Your task to perform on an android device: Show the shopping cart on target.com. Add "logitech g pro" to the cart on target.com Image 0: 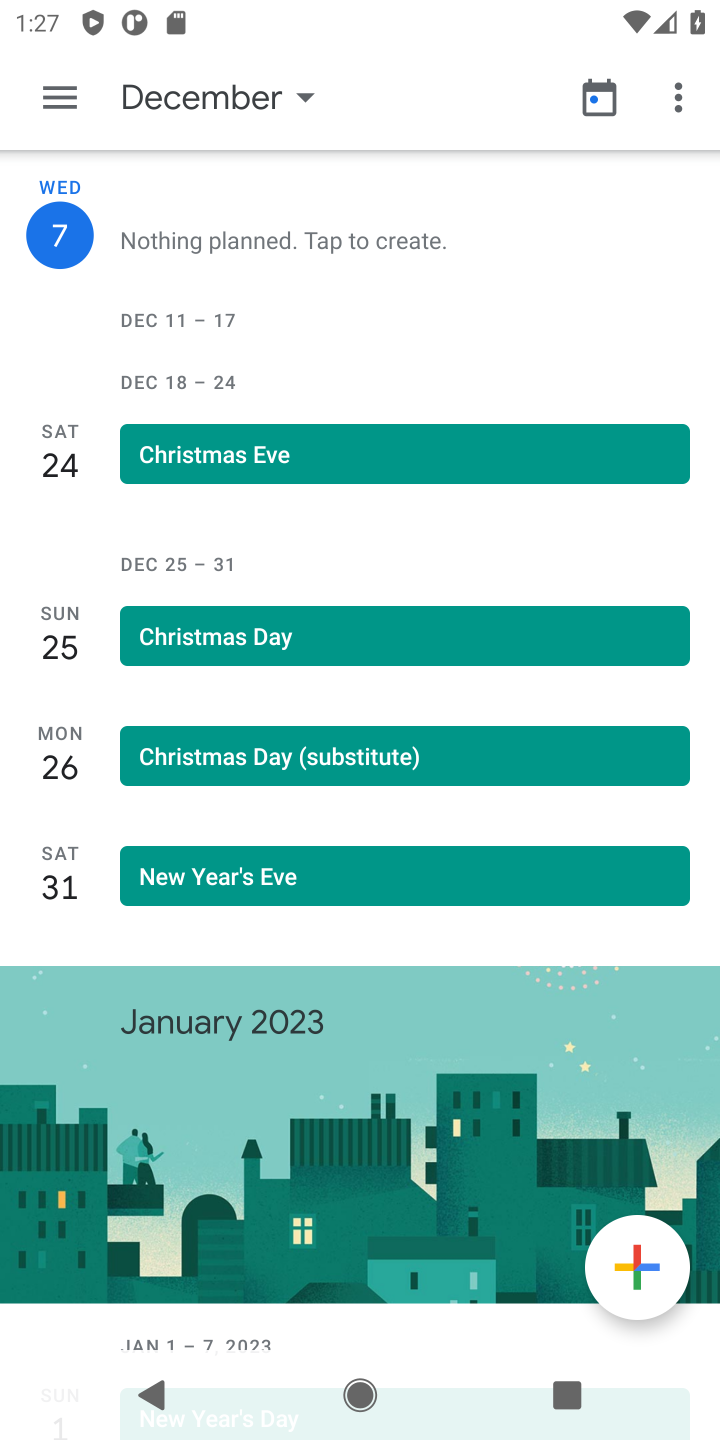
Step 0: press home button
Your task to perform on an android device: Show the shopping cart on target.com. Add "logitech g pro" to the cart on target.com Image 1: 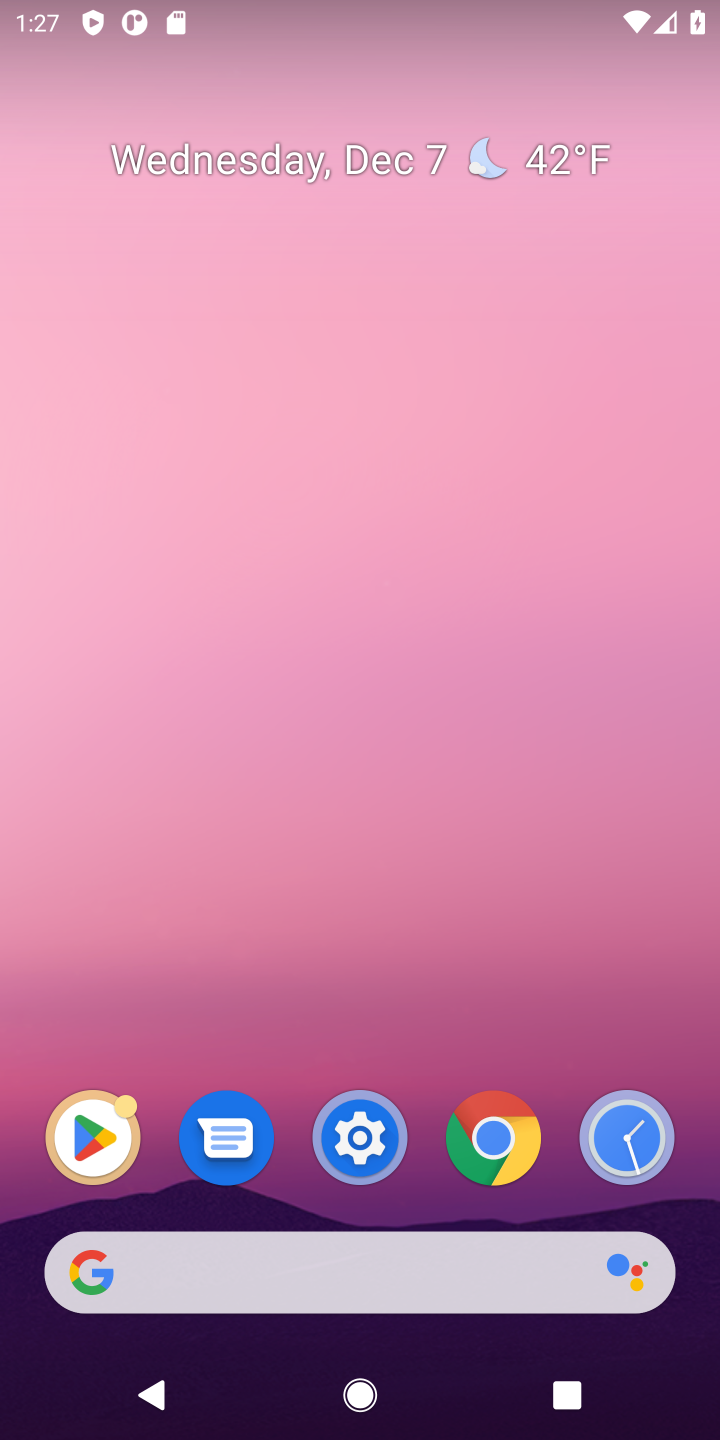
Step 1: click (305, 1263)
Your task to perform on an android device: Show the shopping cart on target.com. Add "logitech g pro" to the cart on target.com Image 2: 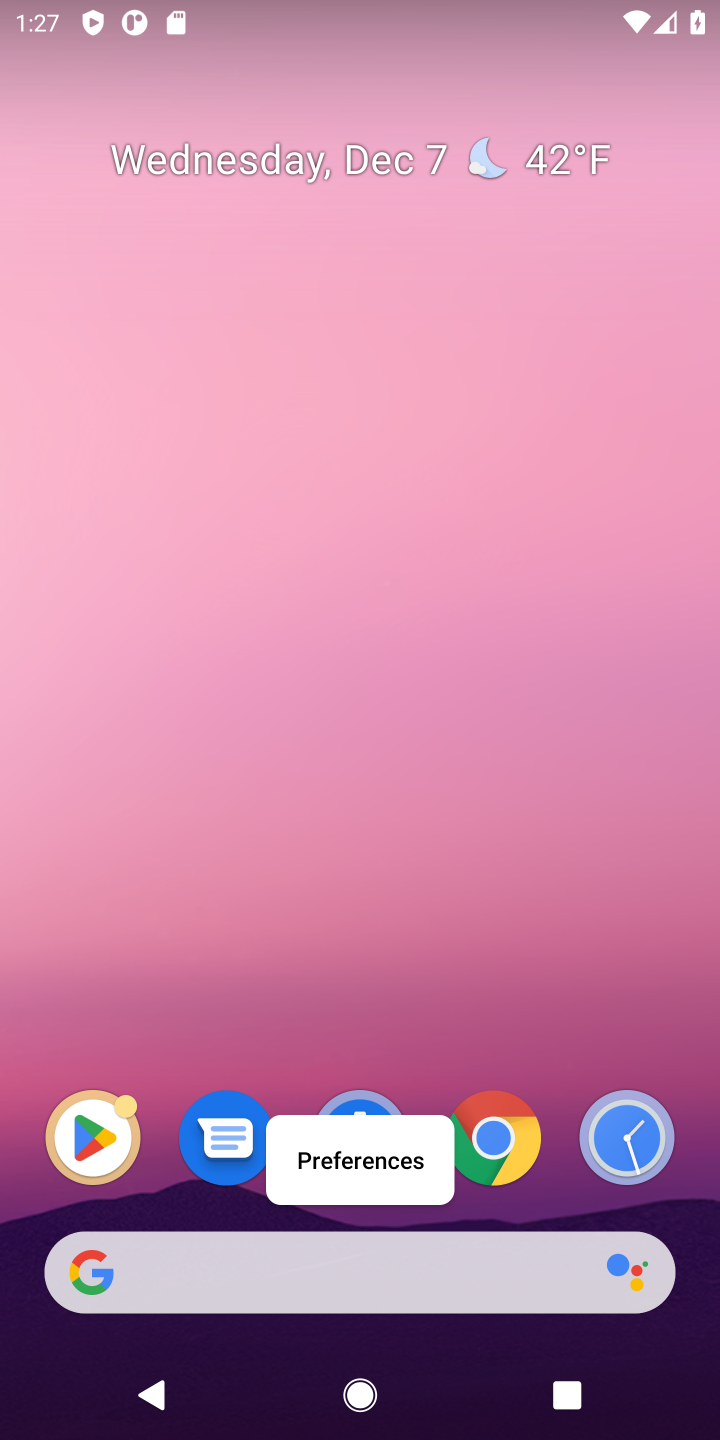
Step 2: type "target'"
Your task to perform on an android device: Show the shopping cart on target.com. Add "logitech g pro" to the cart on target.com Image 3: 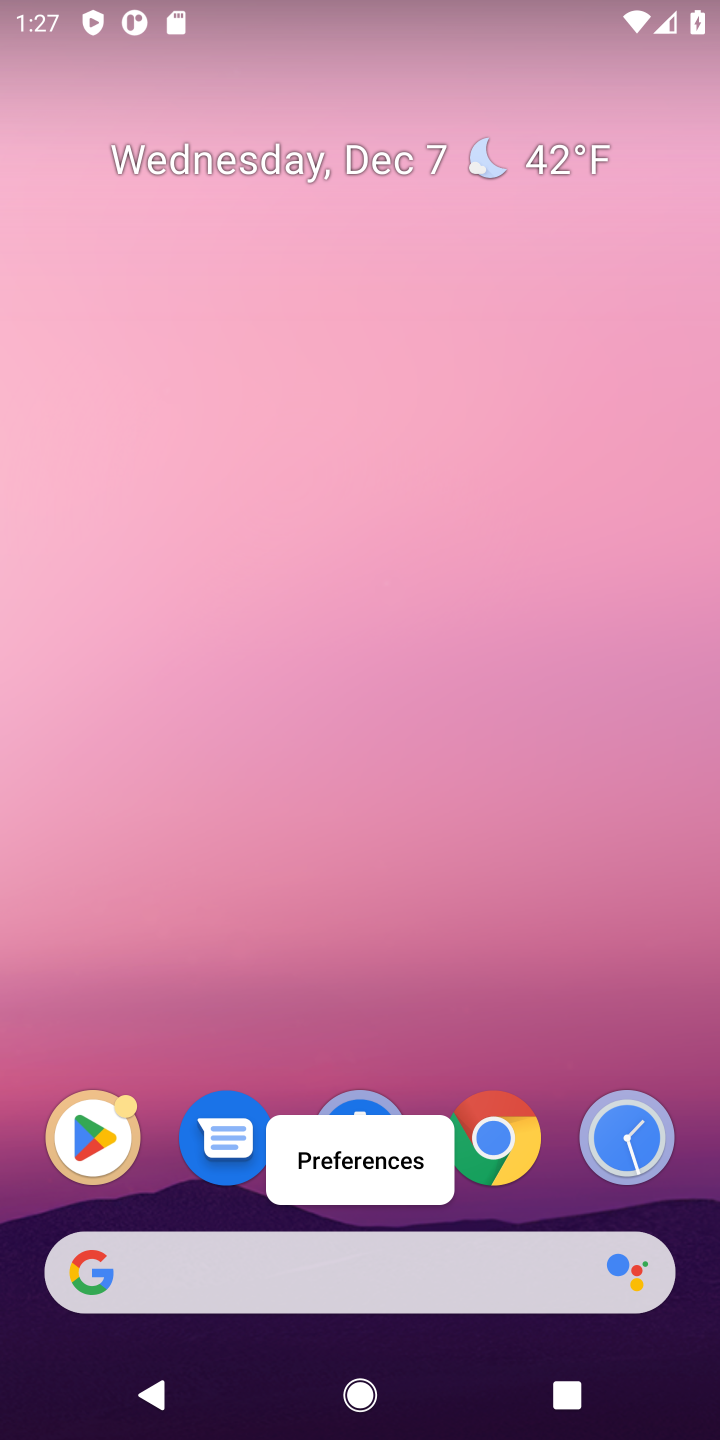
Step 3: click (348, 1258)
Your task to perform on an android device: Show the shopping cart on target.com. Add "logitech g pro" to the cart on target.com Image 4: 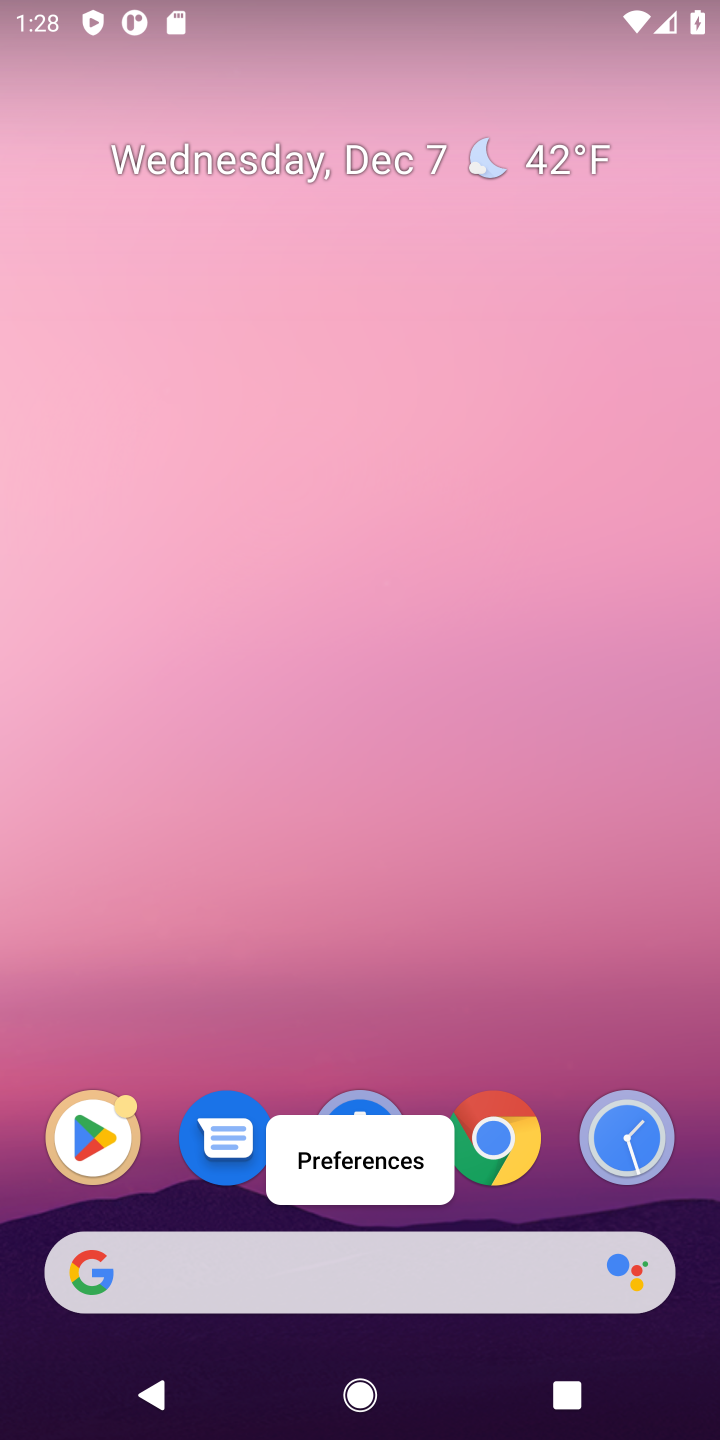
Step 4: click (348, 1258)
Your task to perform on an android device: Show the shopping cart on target.com. Add "logitech g pro" to the cart on target.com Image 5: 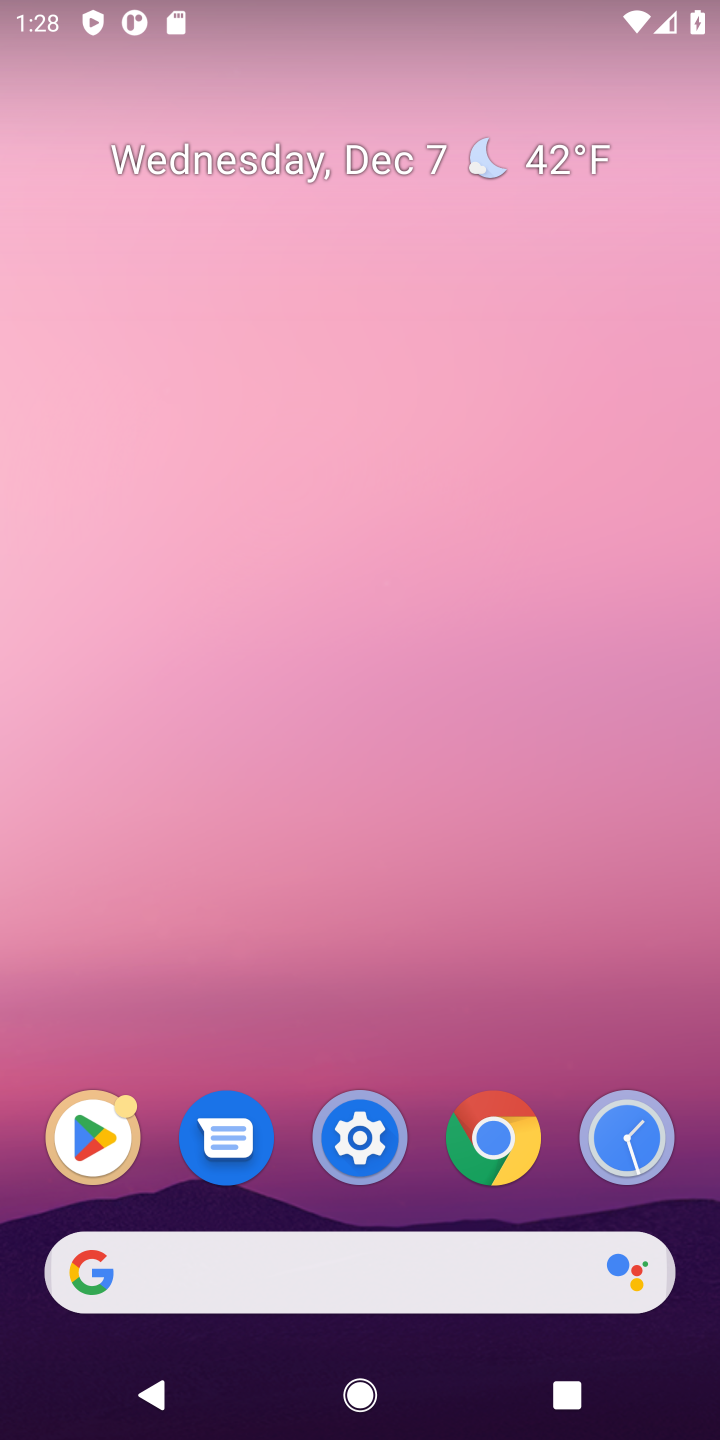
Step 5: click (348, 1258)
Your task to perform on an android device: Show the shopping cart on target.com. Add "logitech g pro" to the cart on target.com Image 6: 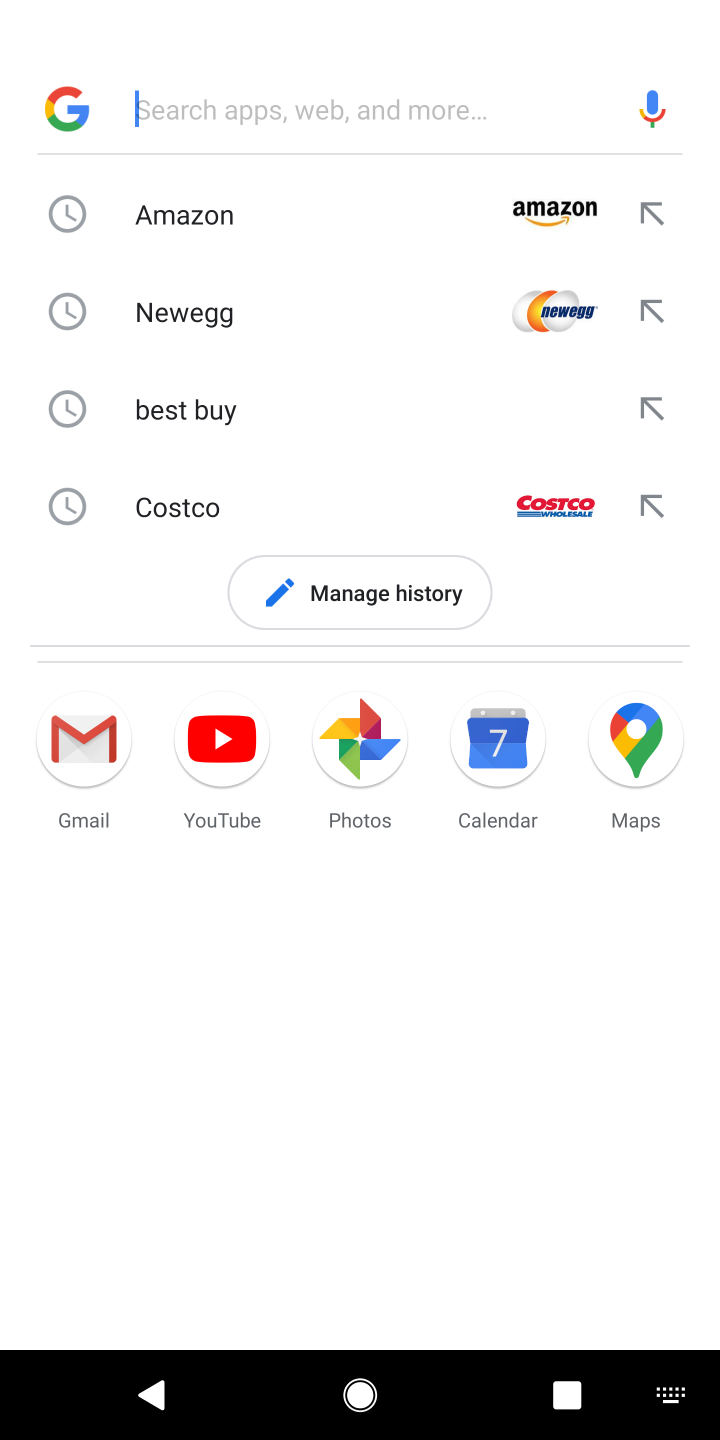
Step 6: type "target\"
Your task to perform on an android device: Show the shopping cart on target.com. Add "logitech g pro" to the cart on target.com Image 7: 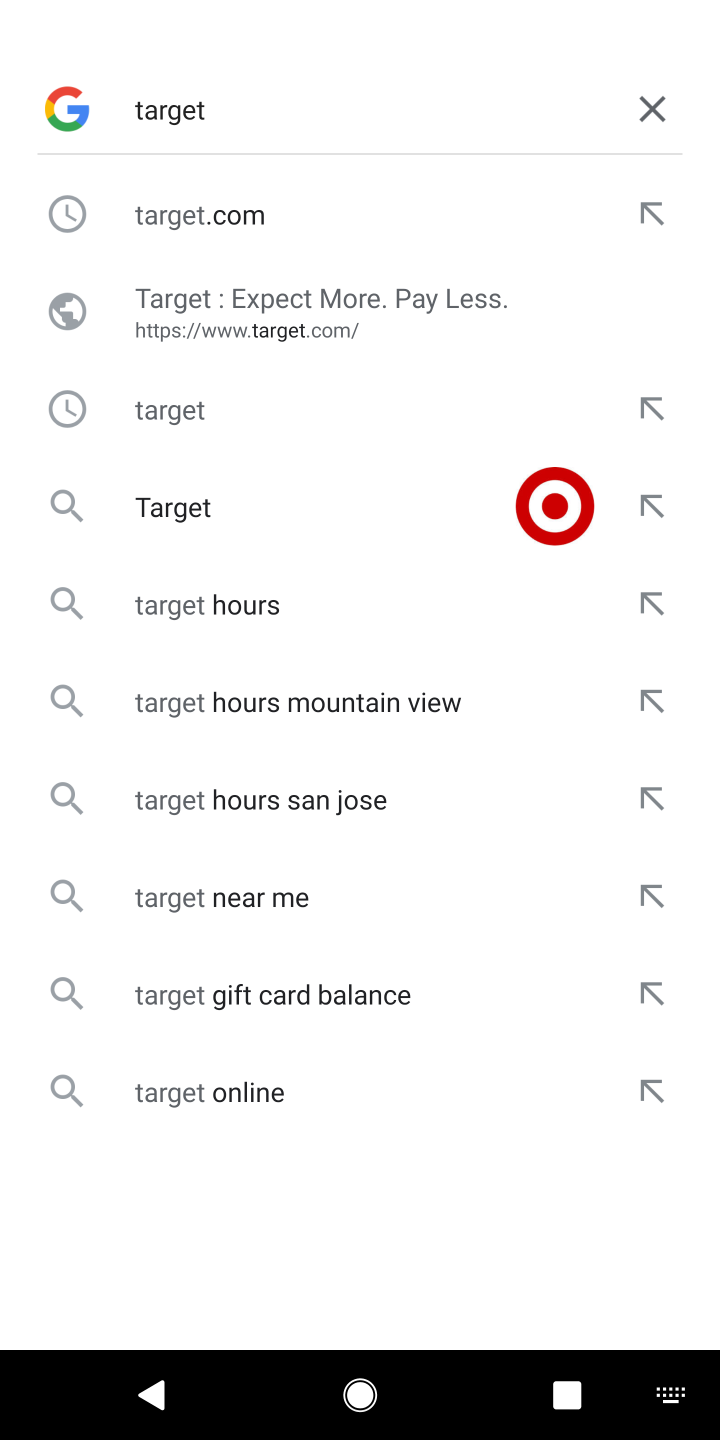
Step 7: click (205, 284)
Your task to perform on an android device: Show the shopping cart on target.com. Add "logitech g pro" to the cart on target.com Image 8: 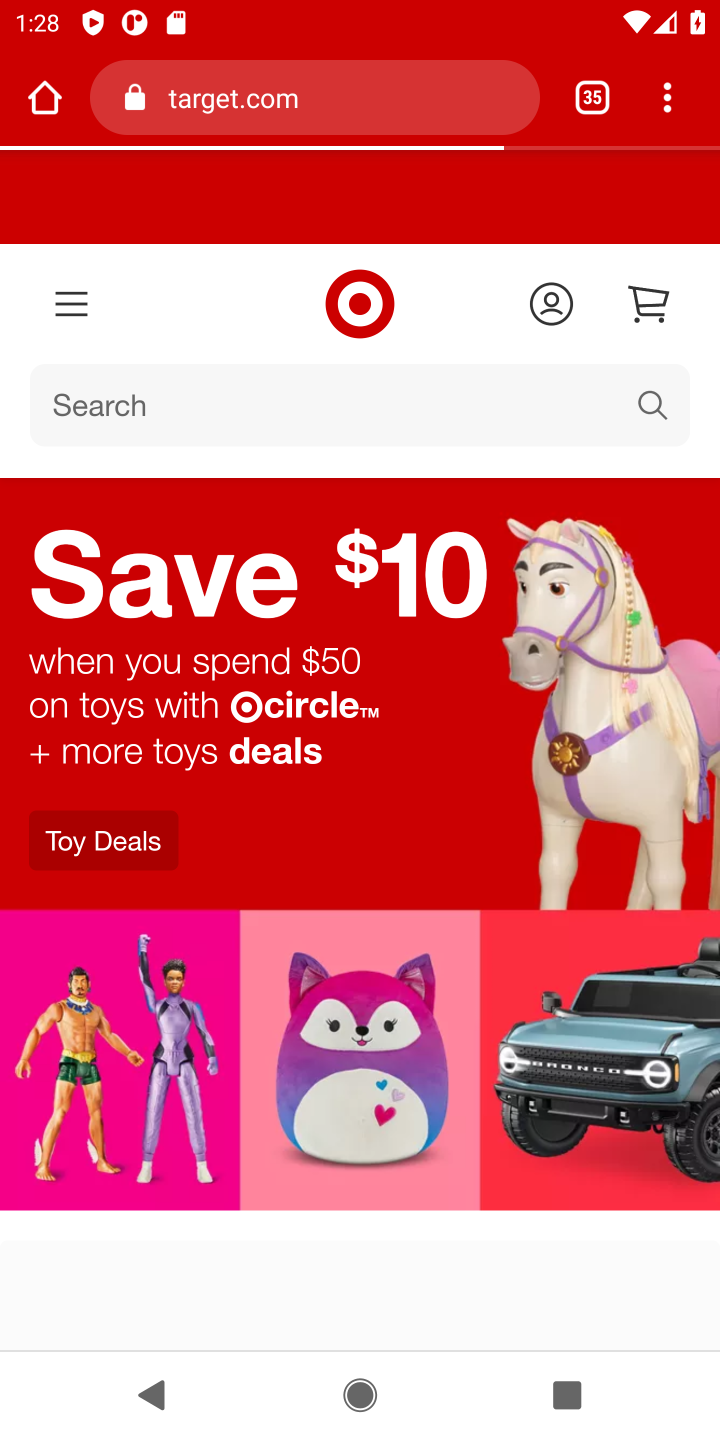
Step 8: task complete